Your task to perform on an android device: open the mobile data screen to see how much data has been used Image 0: 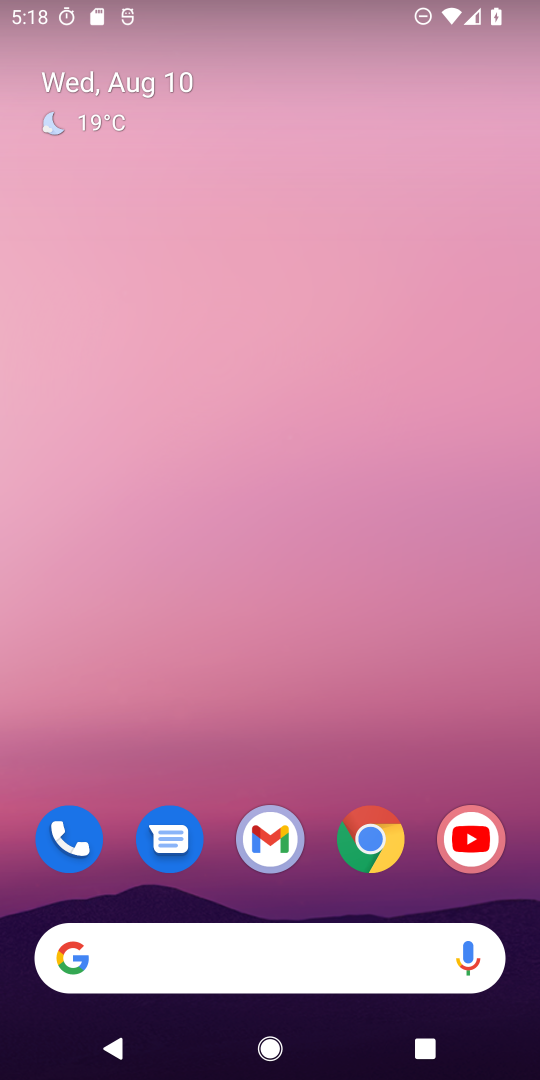
Step 0: drag from (20, 912) to (223, 348)
Your task to perform on an android device: open the mobile data screen to see how much data has been used Image 1: 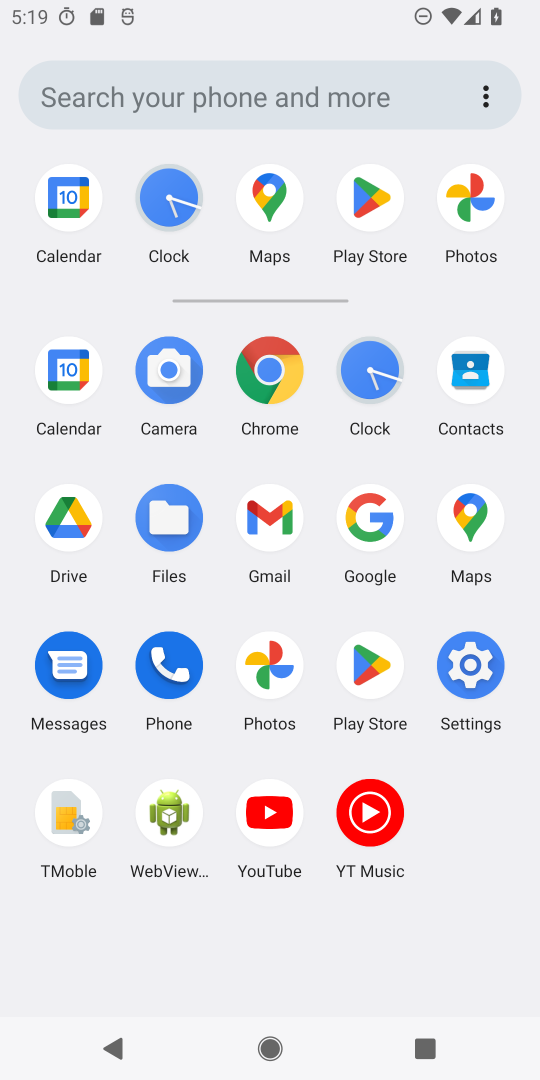
Step 1: click (459, 690)
Your task to perform on an android device: open the mobile data screen to see how much data has been used Image 2: 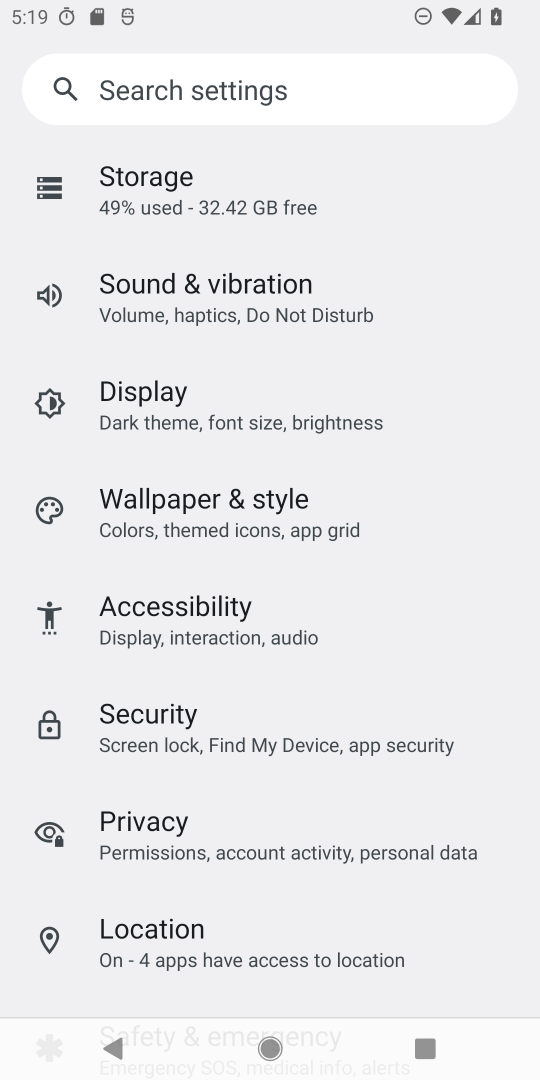
Step 2: drag from (430, 181) to (373, 660)
Your task to perform on an android device: open the mobile data screen to see how much data has been used Image 3: 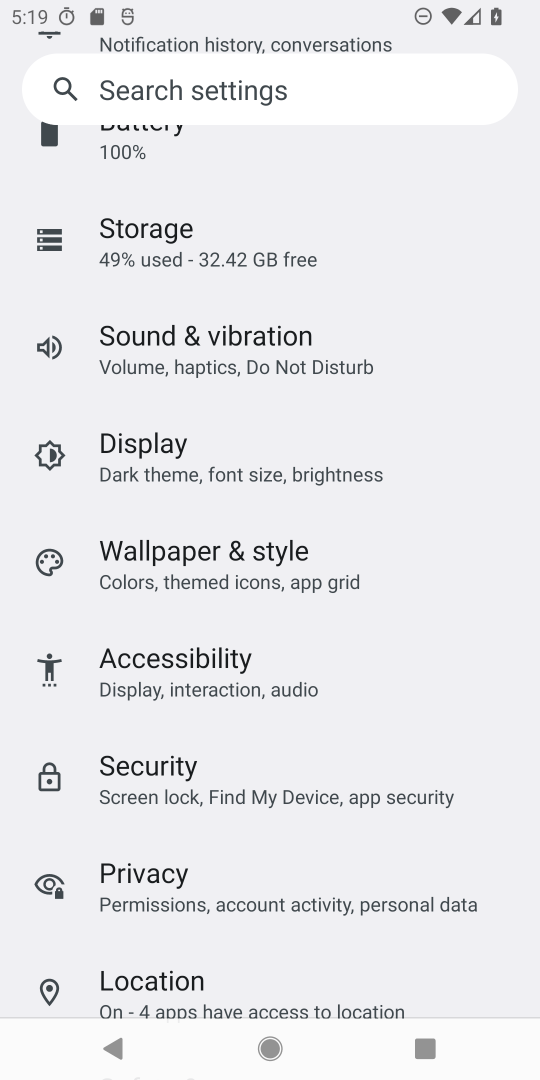
Step 3: drag from (428, 153) to (301, 623)
Your task to perform on an android device: open the mobile data screen to see how much data has been used Image 4: 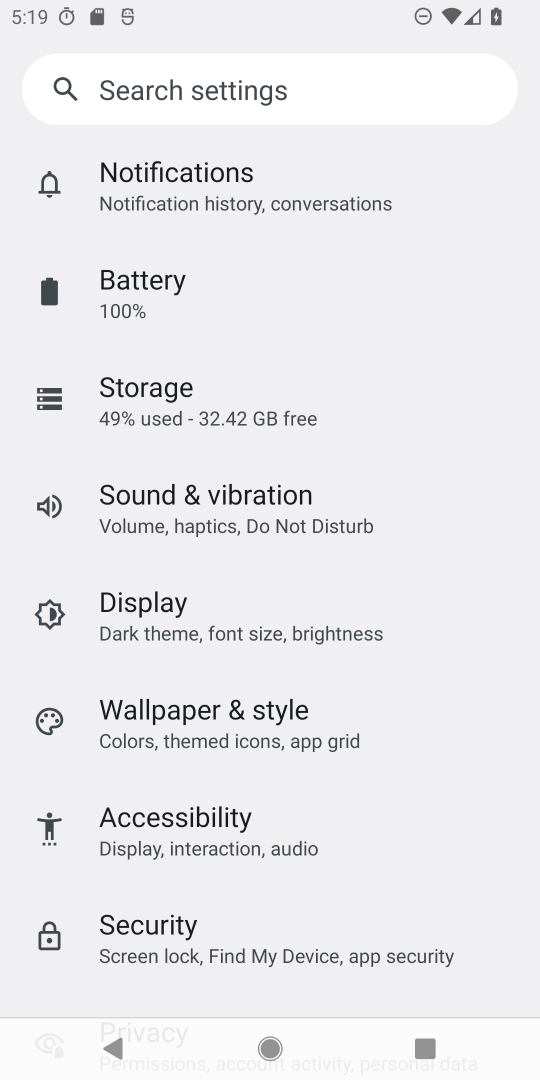
Step 4: drag from (451, 151) to (370, 535)
Your task to perform on an android device: open the mobile data screen to see how much data has been used Image 5: 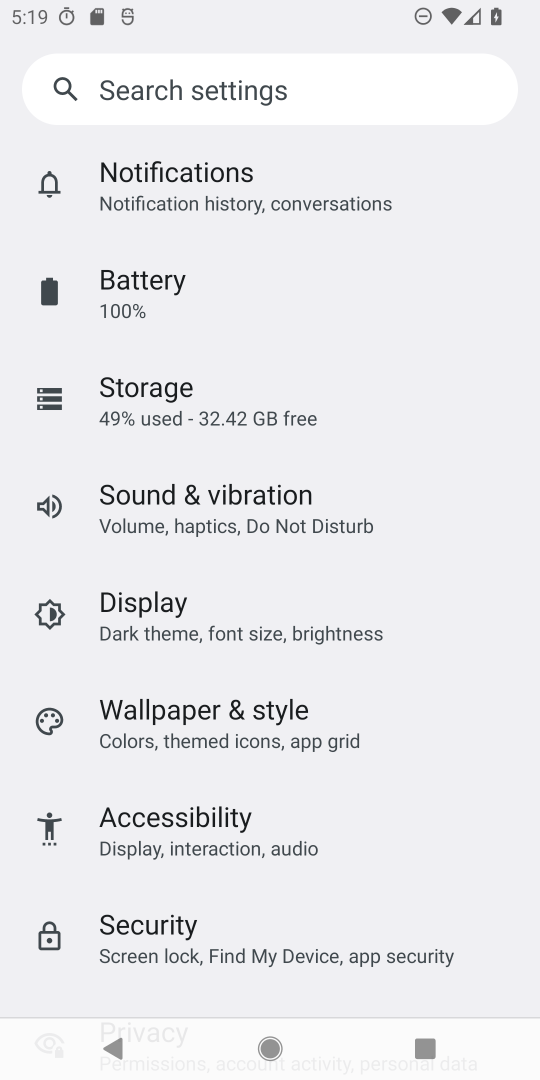
Step 5: drag from (506, 145) to (523, 754)
Your task to perform on an android device: open the mobile data screen to see how much data has been used Image 6: 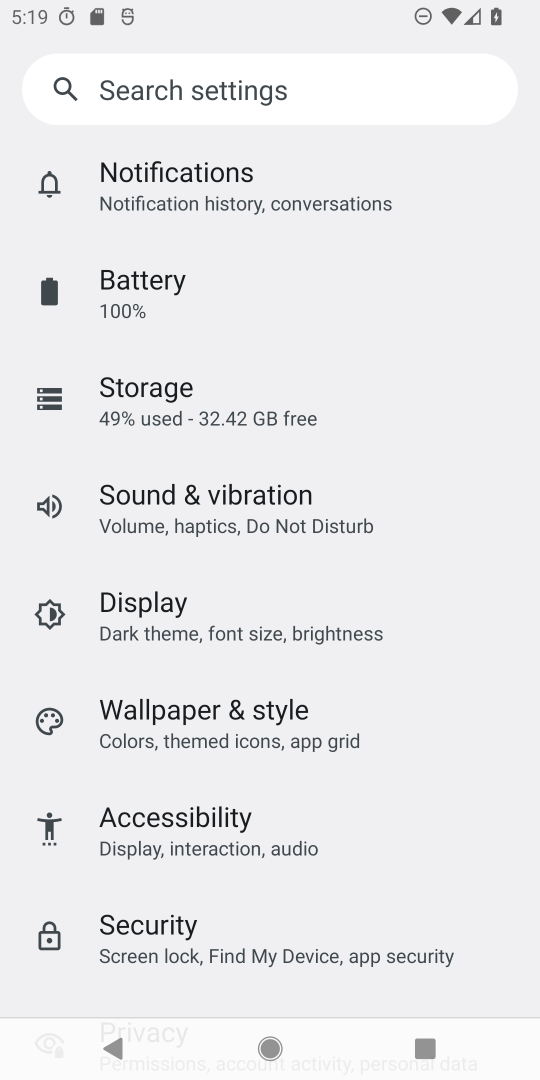
Step 6: drag from (452, 163) to (389, 841)
Your task to perform on an android device: open the mobile data screen to see how much data has been used Image 7: 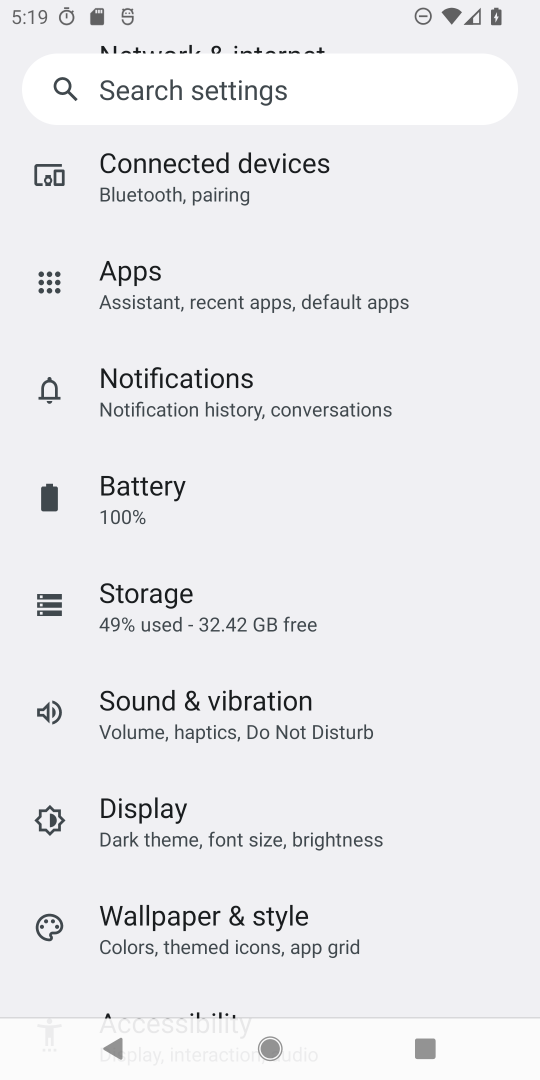
Step 7: drag from (474, 161) to (441, 466)
Your task to perform on an android device: open the mobile data screen to see how much data has been used Image 8: 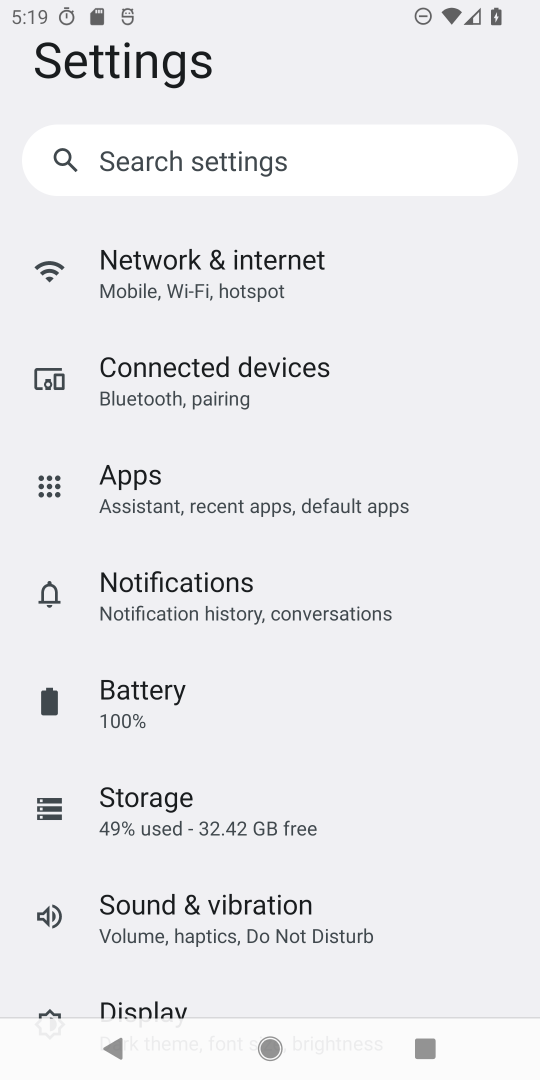
Step 8: click (242, 255)
Your task to perform on an android device: open the mobile data screen to see how much data has been used Image 9: 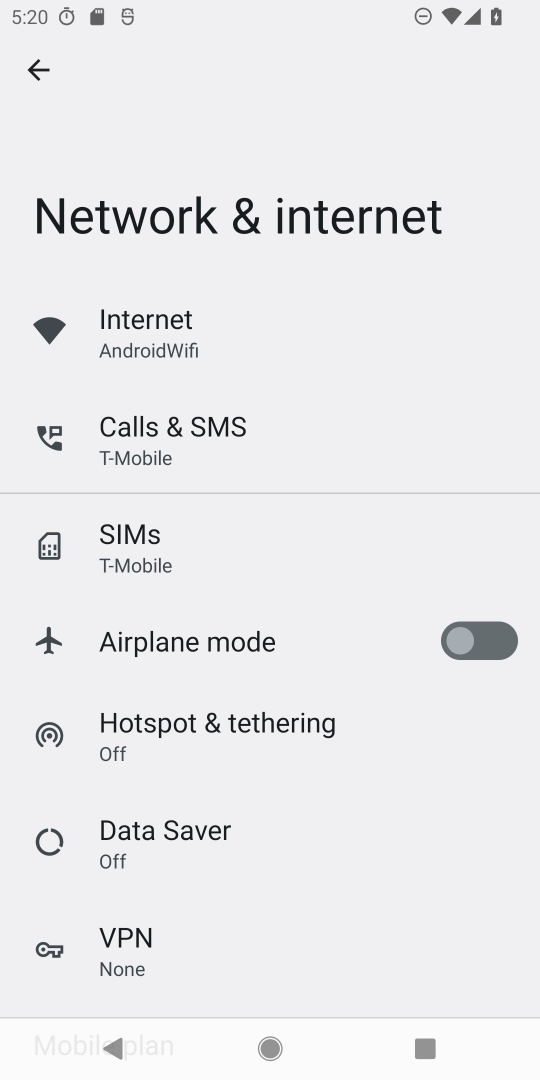
Step 9: drag from (392, 961) to (418, 30)
Your task to perform on an android device: open the mobile data screen to see how much data has been used Image 10: 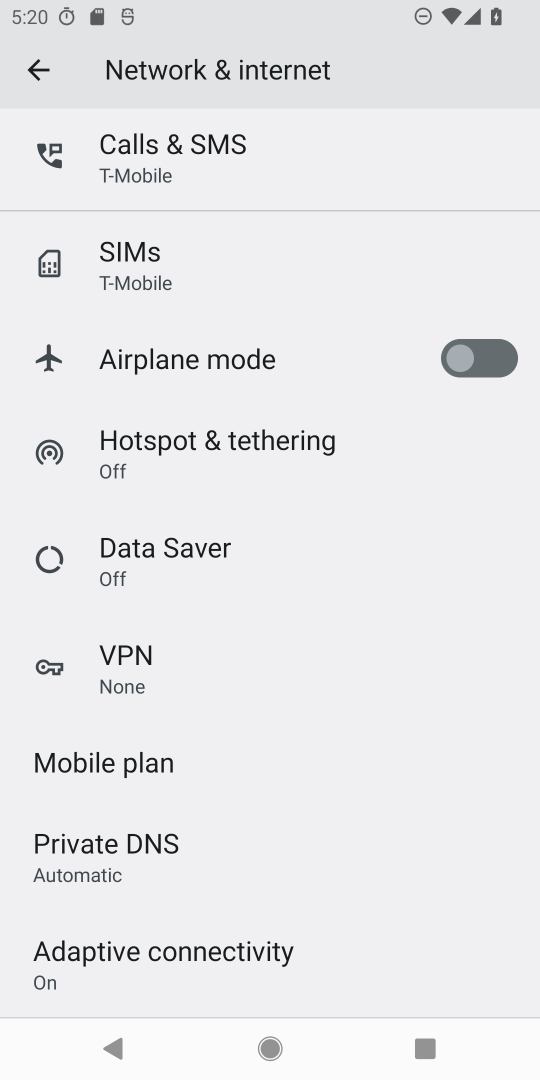
Step 10: drag from (397, 175) to (297, 1025)
Your task to perform on an android device: open the mobile data screen to see how much data has been used Image 11: 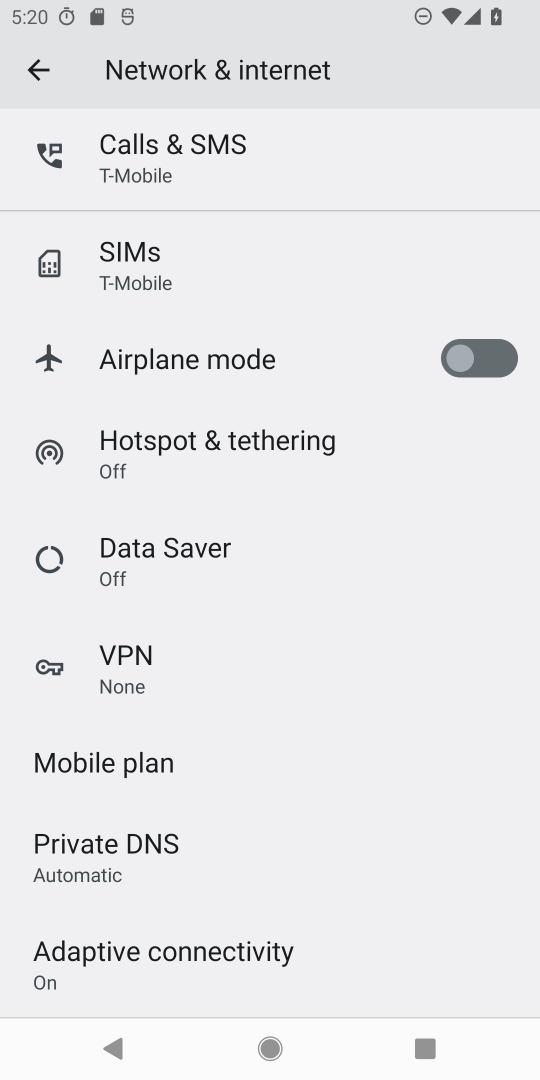
Step 11: drag from (388, 123) to (155, 735)
Your task to perform on an android device: open the mobile data screen to see how much data has been used Image 12: 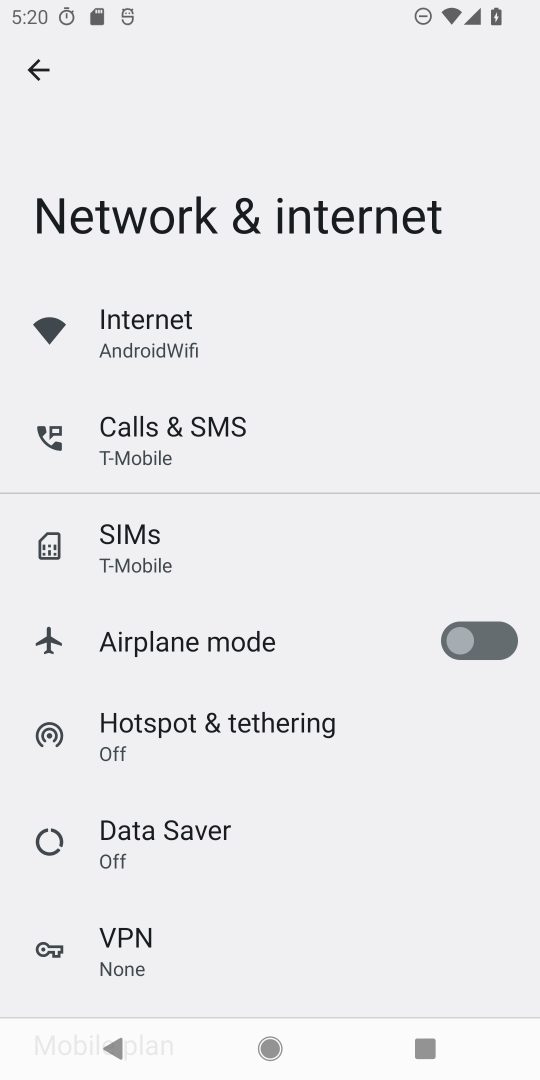
Step 12: click (178, 363)
Your task to perform on an android device: open the mobile data screen to see how much data has been used Image 13: 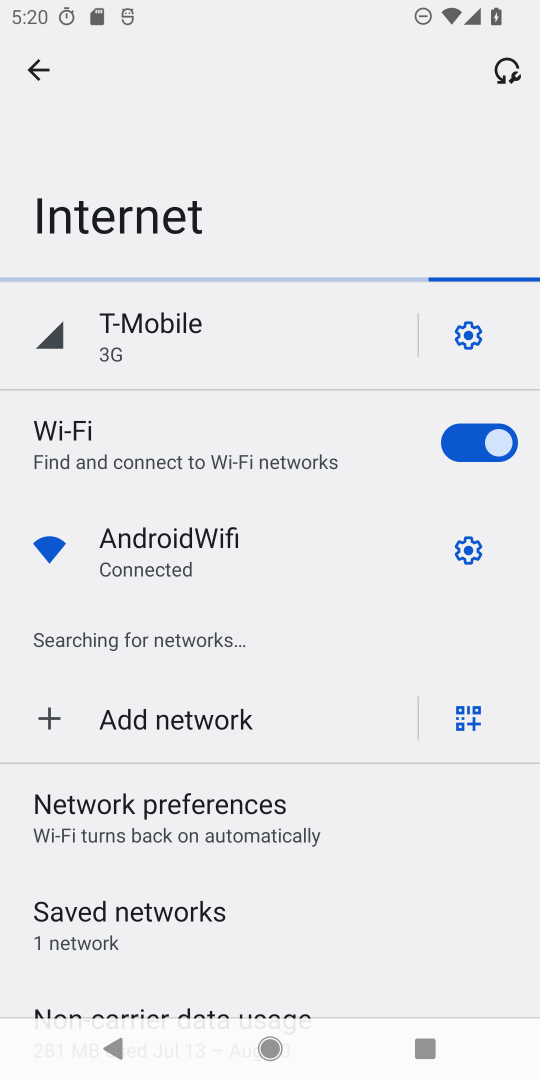
Step 13: drag from (349, 953) to (378, 659)
Your task to perform on an android device: open the mobile data screen to see how much data has been used Image 14: 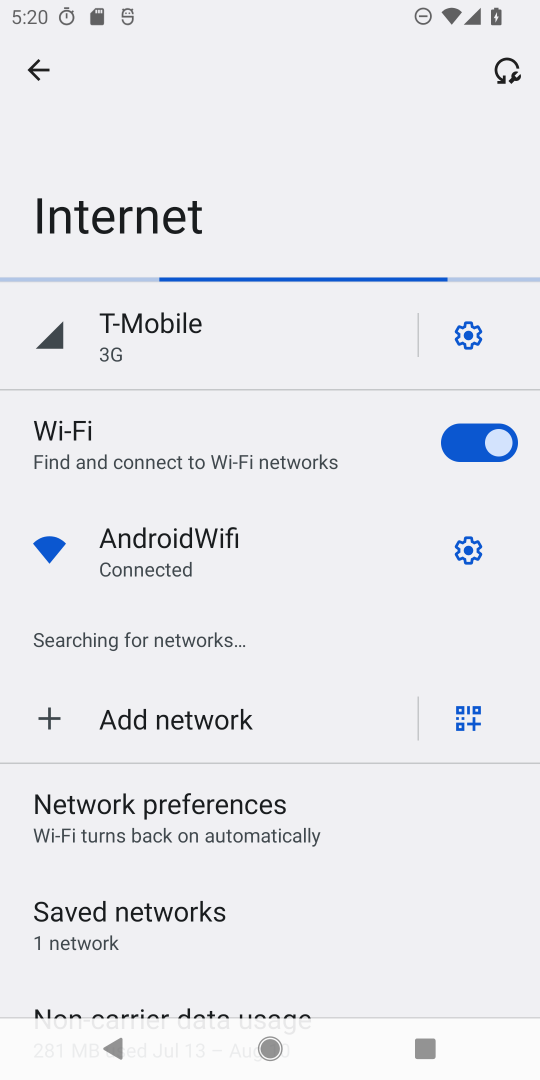
Step 14: drag from (391, 907) to (529, 86)
Your task to perform on an android device: open the mobile data screen to see how much data has been used Image 15: 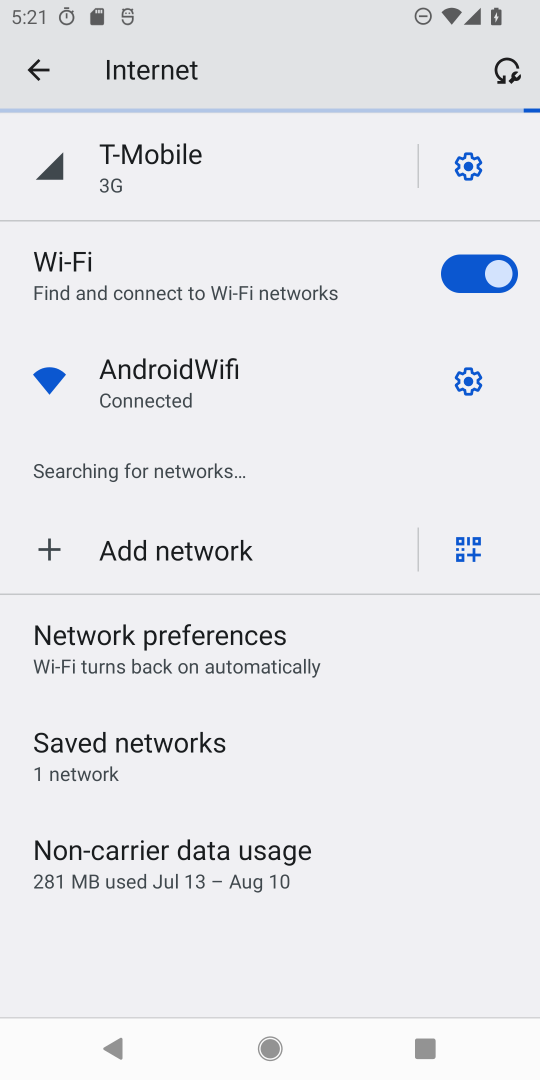
Step 15: click (198, 856)
Your task to perform on an android device: open the mobile data screen to see how much data has been used Image 16: 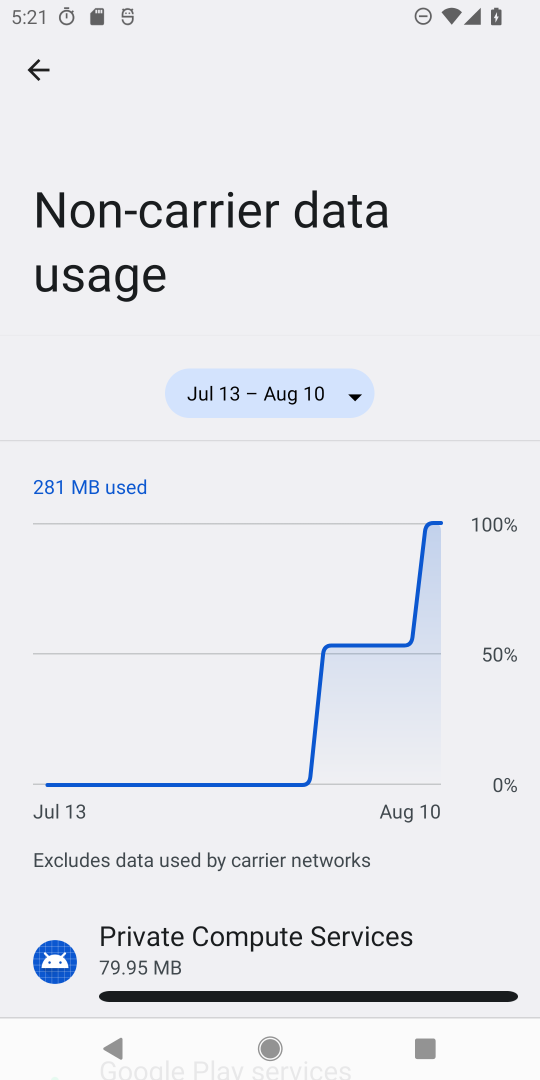
Step 16: task complete